Your task to perform on an android device: open app "Viber Messenger" (install if not already installed) and go to login screen Image 0: 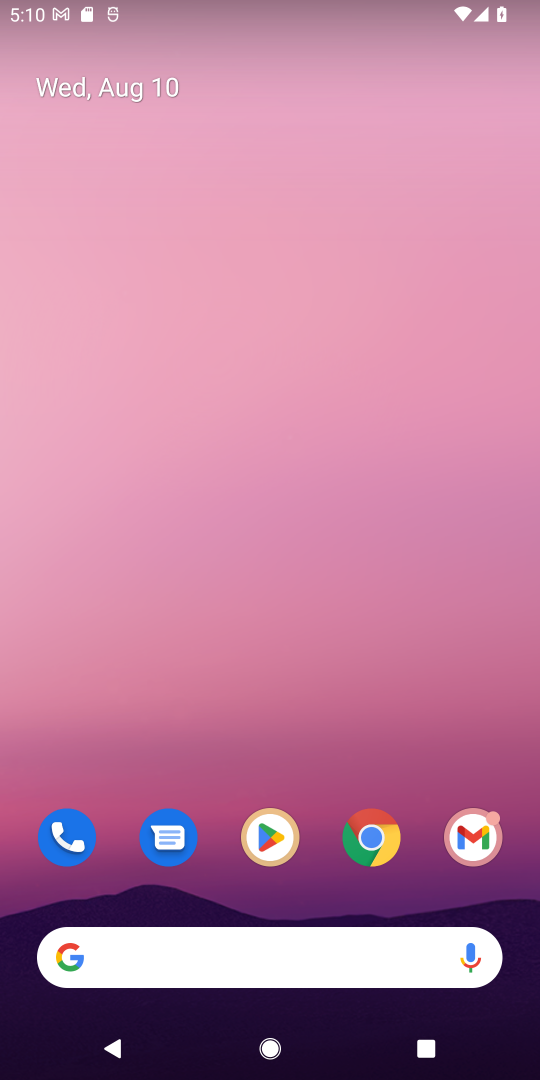
Step 0: click (255, 836)
Your task to perform on an android device: open app "Viber Messenger" (install if not already installed) and go to login screen Image 1: 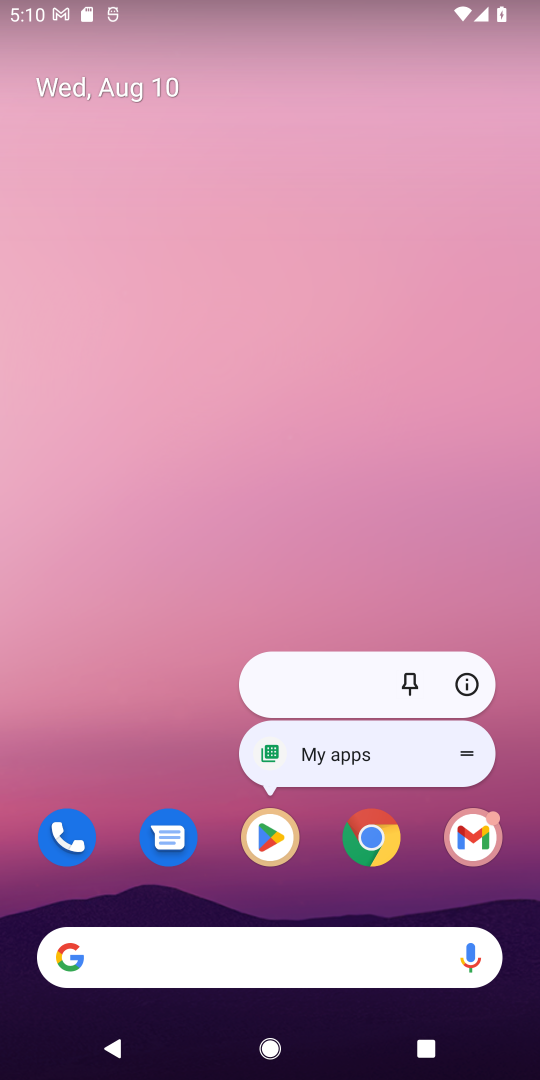
Step 1: click (265, 832)
Your task to perform on an android device: open app "Viber Messenger" (install if not already installed) and go to login screen Image 2: 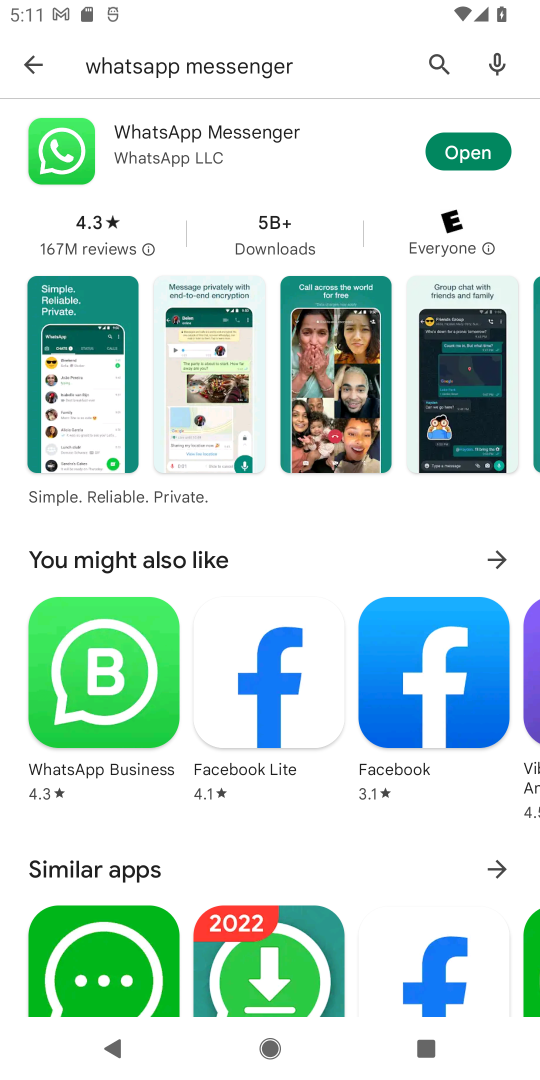
Step 2: click (439, 58)
Your task to perform on an android device: open app "Viber Messenger" (install if not already installed) and go to login screen Image 3: 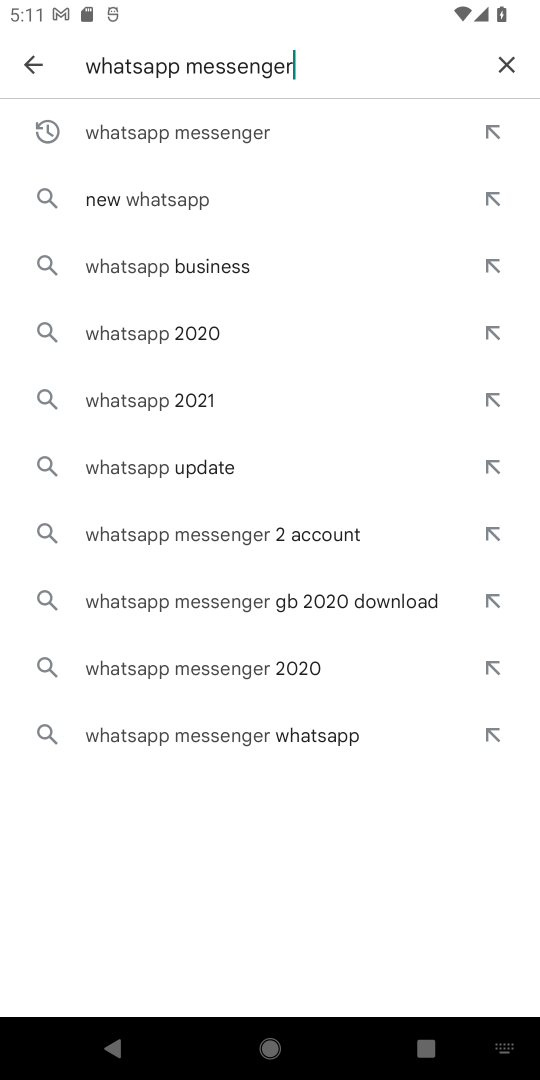
Step 3: click (492, 56)
Your task to perform on an android device: open app "Viber Messenger" (install if not already installed) and go to login screen Image 4: 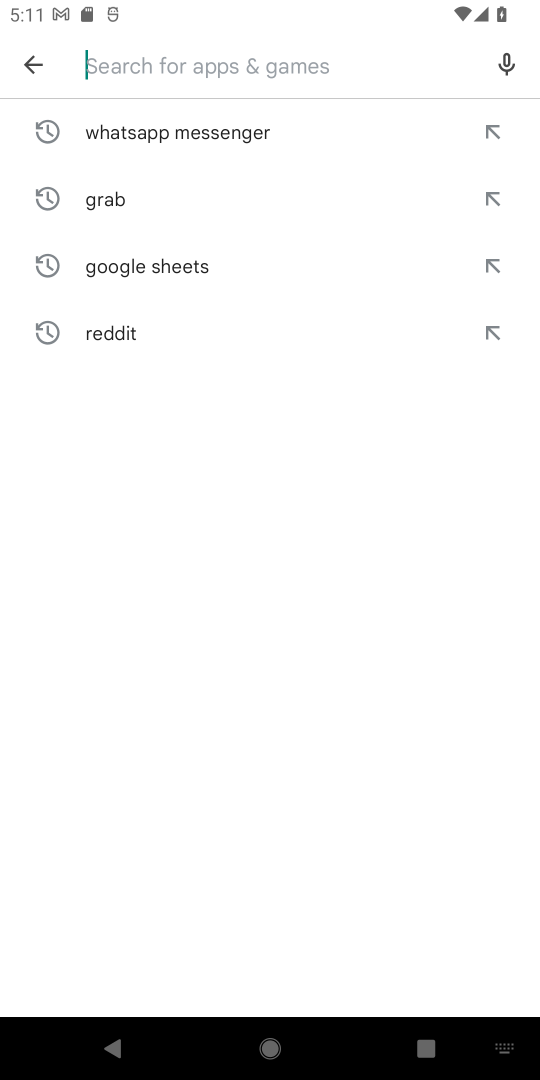
Step 4: type "Viber Messenger"
Your task to perform on an android device: open app "Viber Messenger" (install if not already installed) and go to login screen Image 5: 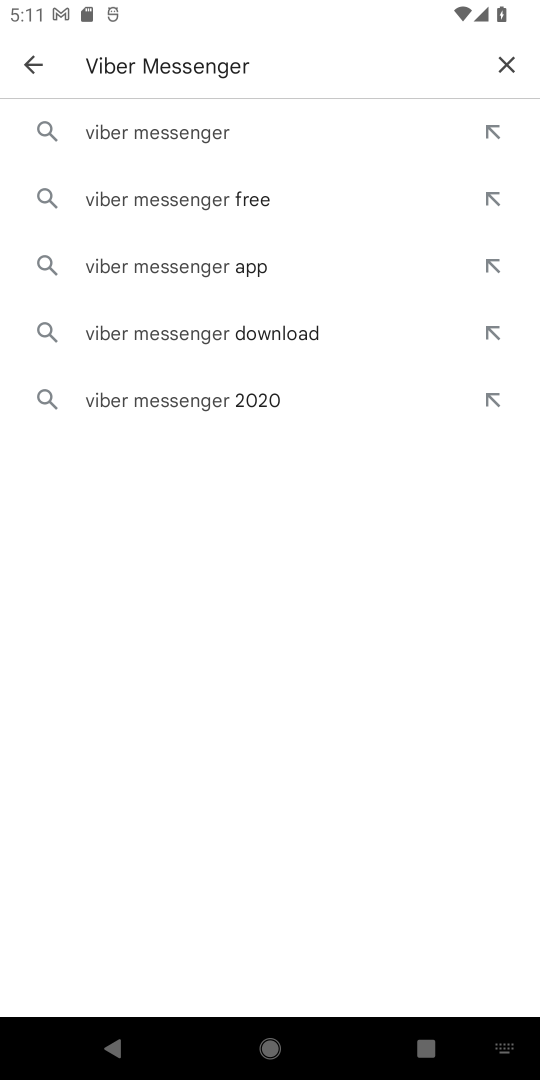
Step 5: click (198, 132)
Your task to perform on an android device: open app "Viber Messenger" (install if not already installed) and go to login screen Image 6: 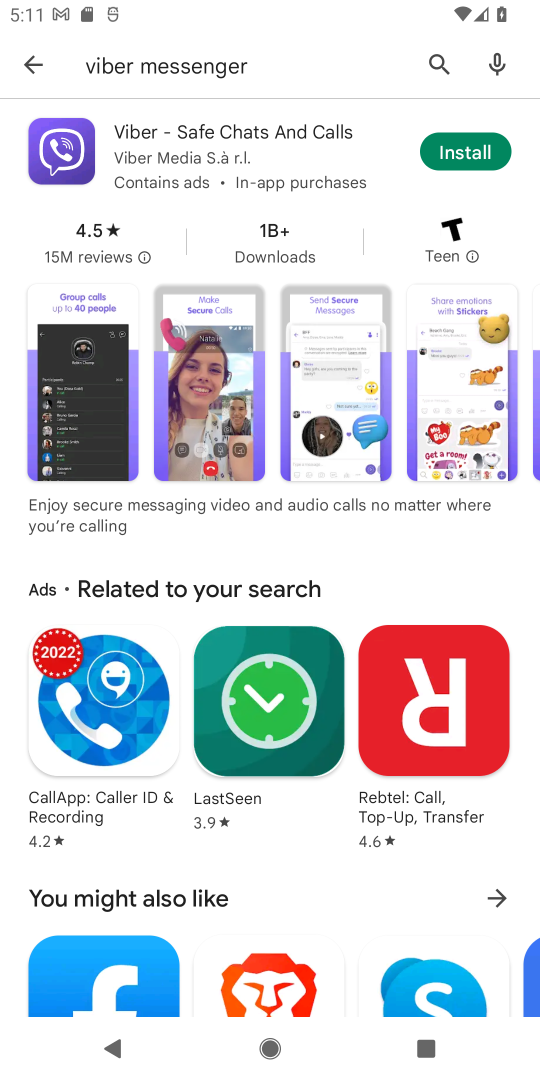
Step 6: click (475, 153)
Your task to perform on an android device: open app "Viber Messenger" (install if not already installed) and go to login screen Image 7: 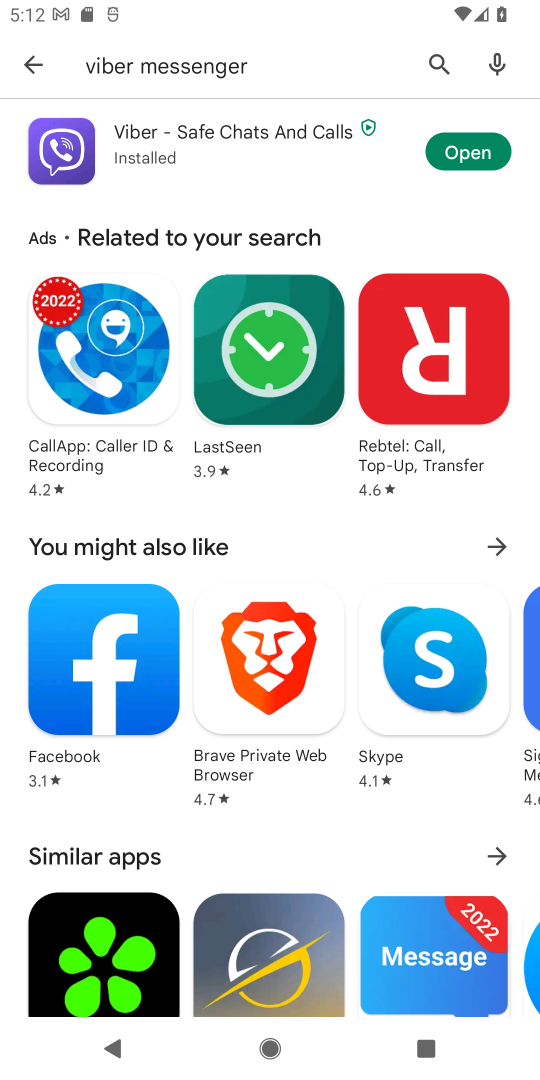
Step 7: click (471, 146)
Your task to perform on an android device: open app "Viber Messenger" (install if not already installed) and go to login screen Image 8: 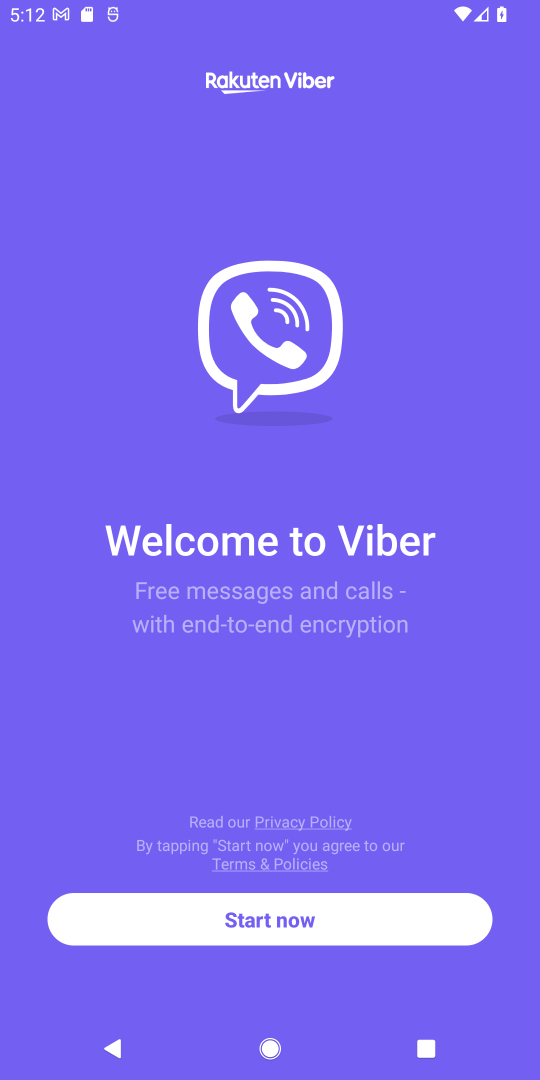
Step 8: task complete